Your task to perform on an android device: Open battery settings Image 0: 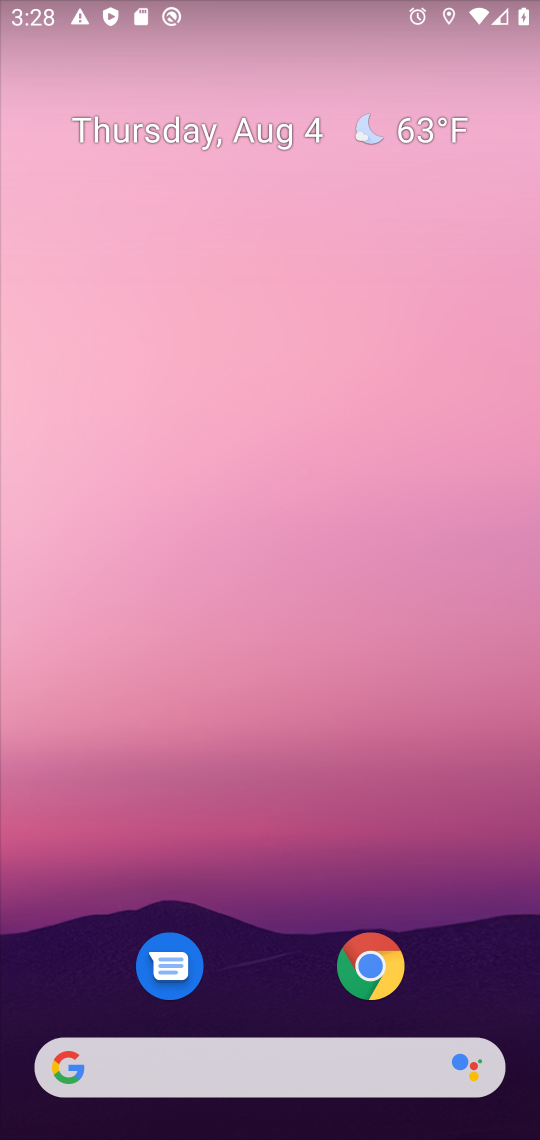
Step 0: press home button
Your task to perform on an android device: Open battery settings Image 1: 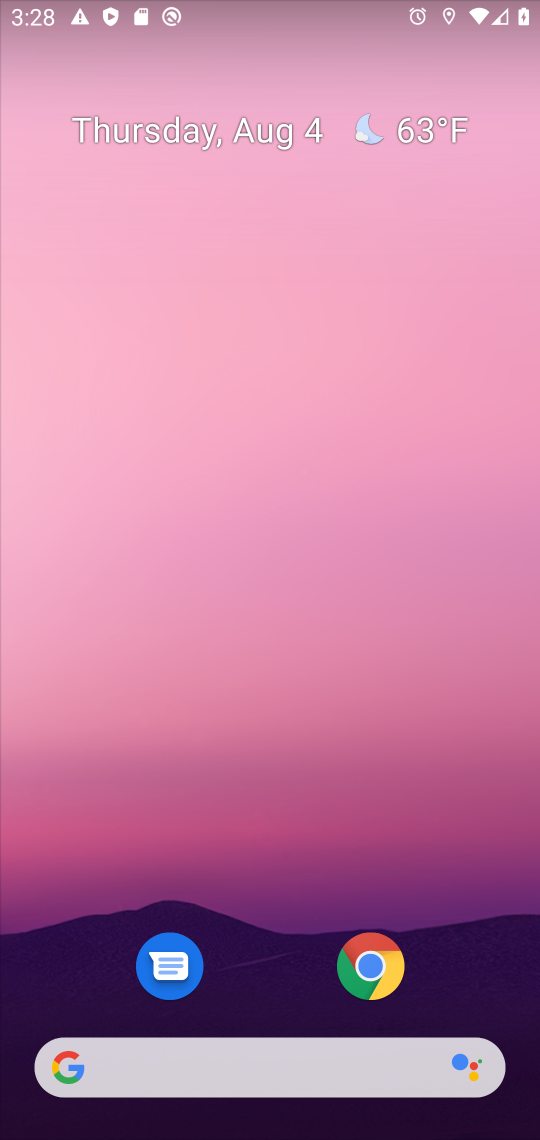
Step 1: drag from (310, 965) to (308, 124)
Your task to perform on an android device: Open battery settings Image 2: 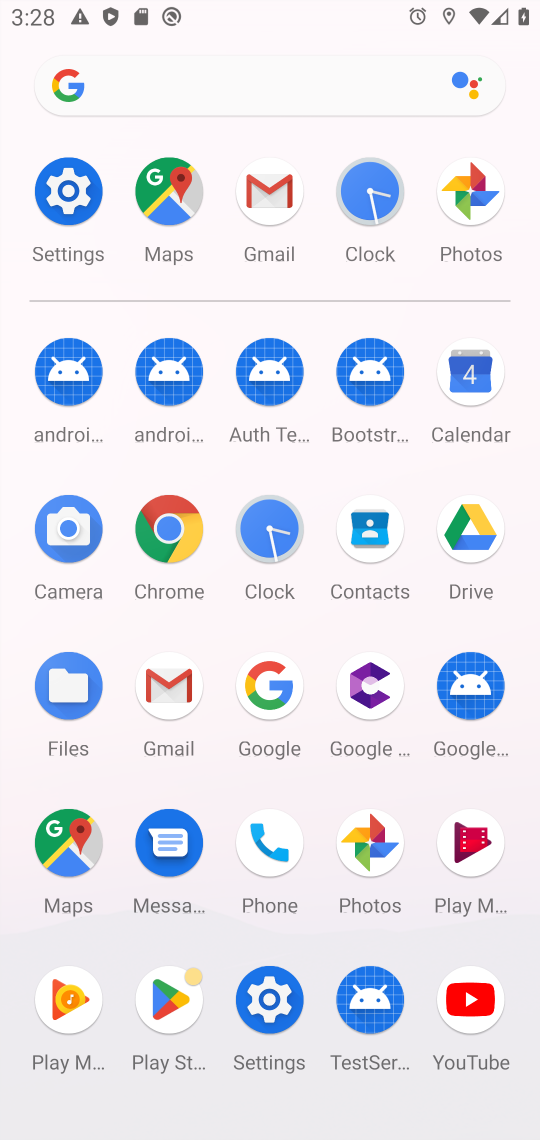
Step 2: click (53, 209)
Your task to perform on an android device: Open battery settings Image 3: 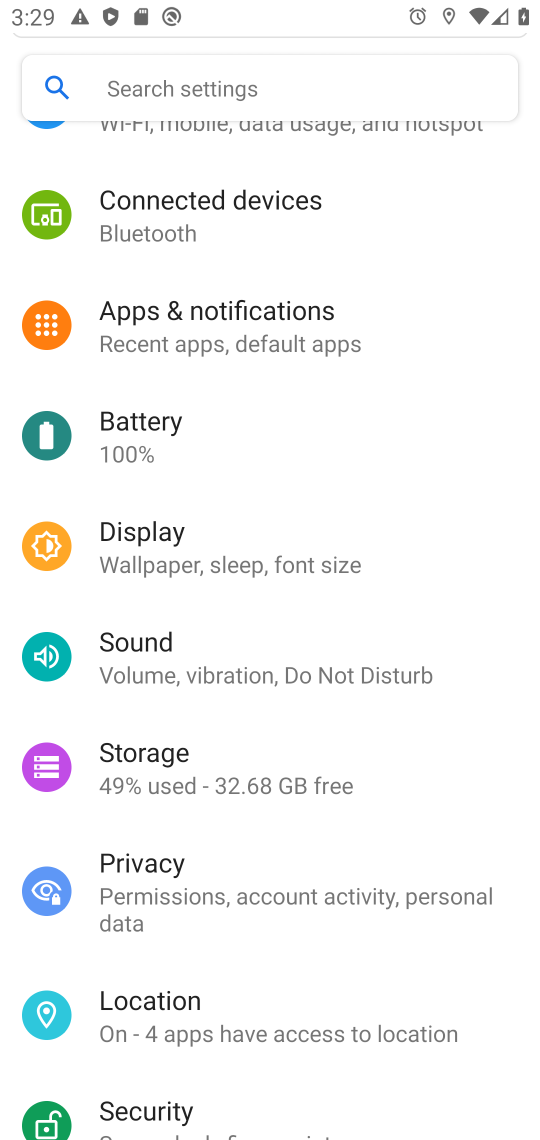
Step 3: click (133, 432)
Your task to perform on an android device: Open battery settings Image 4: 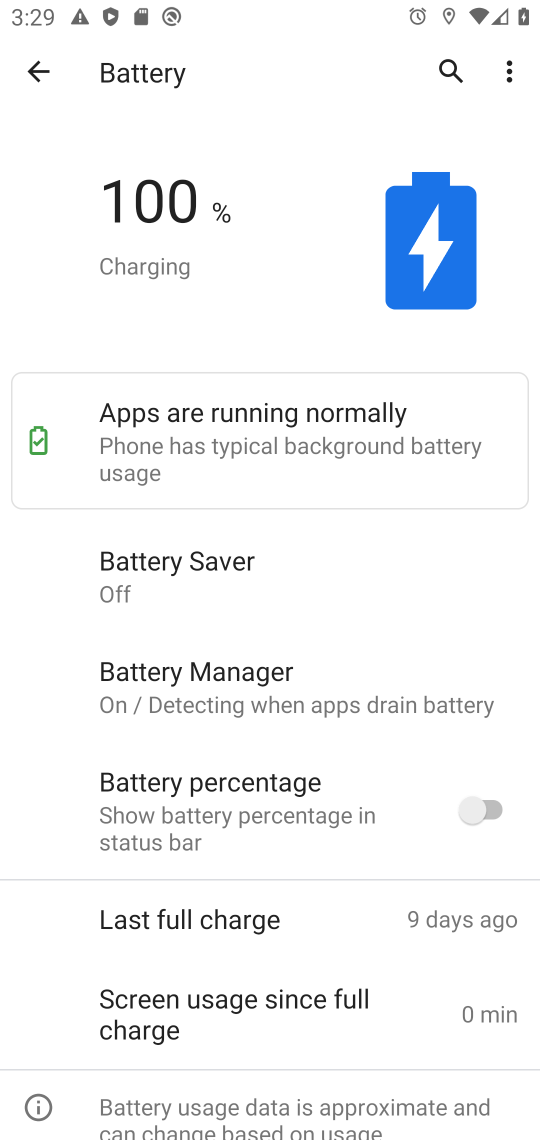
Step 4: task complete